Your task to perform on an android device: open chrome and create a bookmark for the current page Image 0: 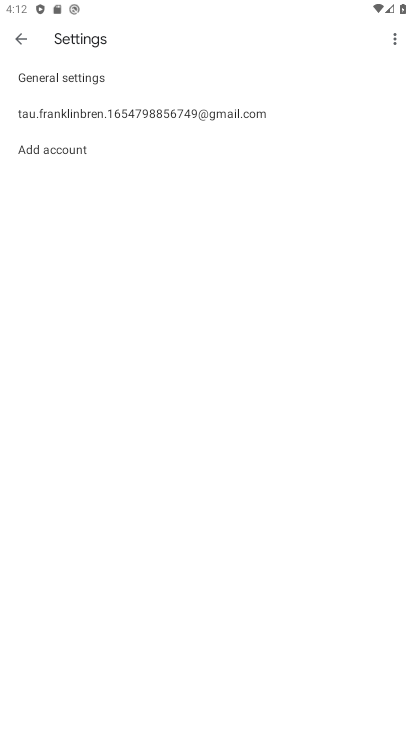
Step 0: press home button
Your task to perform on an android device: open chrome and create a bookmark for the current page Image 1: 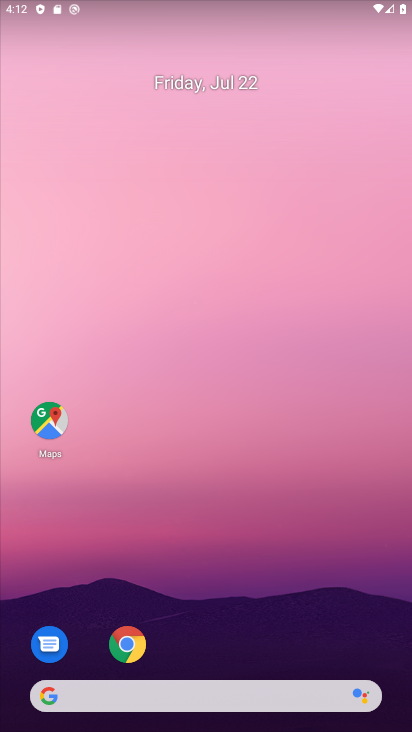
Step 1: click (129, 647)
Your task to perform on an android device: open chrome and create a bookmark for the current page Image 2: 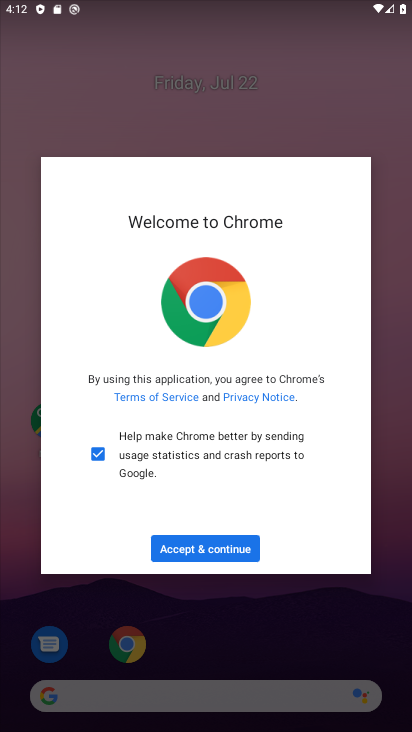
Step 2: click (246, 549)
Your task to perform on an android device: open chrome and create a bookmark for the current page Image 3: 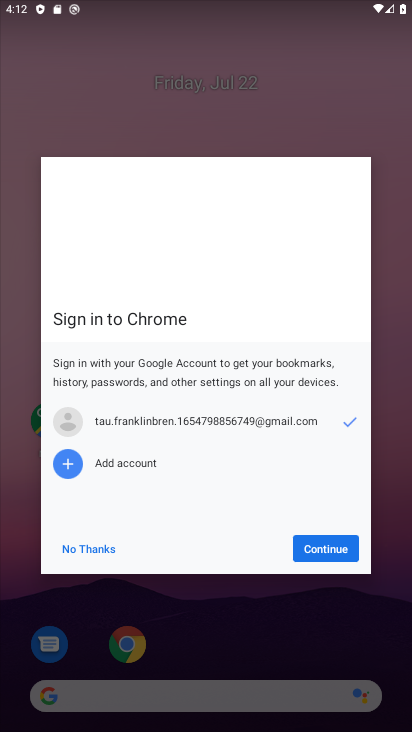
Step 3: click (321, 551)
Your task to perform on an android device: open chrome and create a bookmark for the current page Image 4: 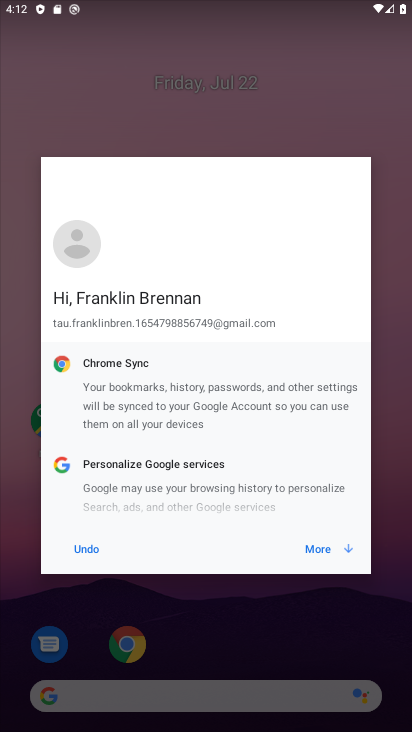
Step 4: click (321, 551)
Your task to perform on an android device: open chrome and create a bookmark for the current page Image 5: 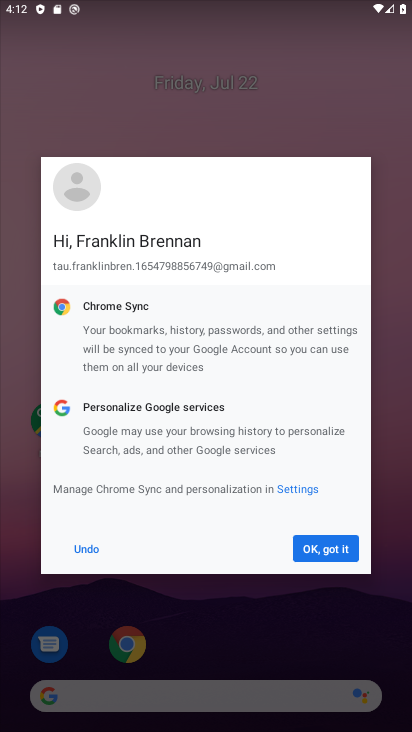
Step 5: click (321, 551)
Your task to perform on an android device: open chrome and create a bookmark for the current page Image 6: 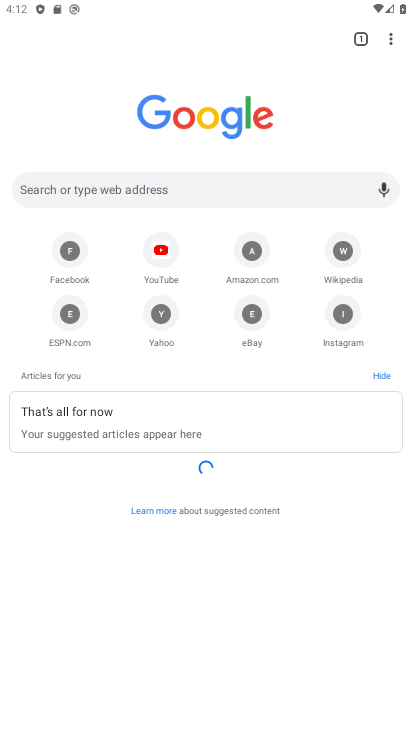
Step 6: click (388, 34)
Your task to perform on an android device: open chrome and create a bookmark for the current page Image 7: 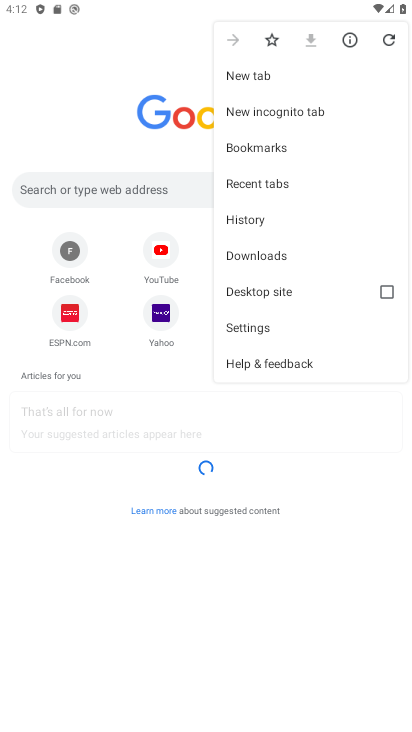
Step 7: click (273, 41)
Your task to perform on an android device: open chrome and create a bookmark for the current page Image 8: 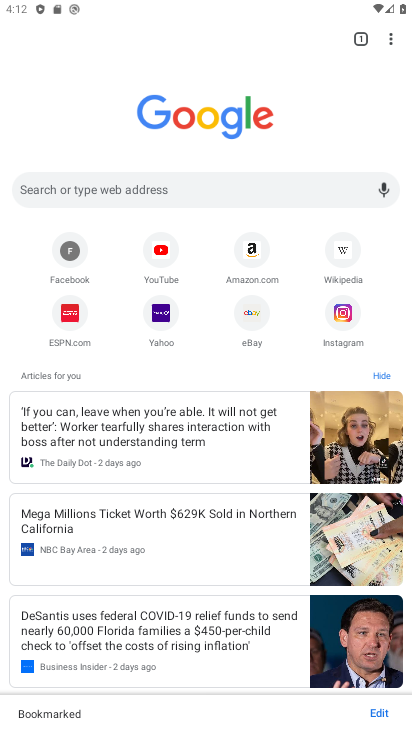
Step 8: task complete